Your task to perform on an android device: add a contact Image 0: 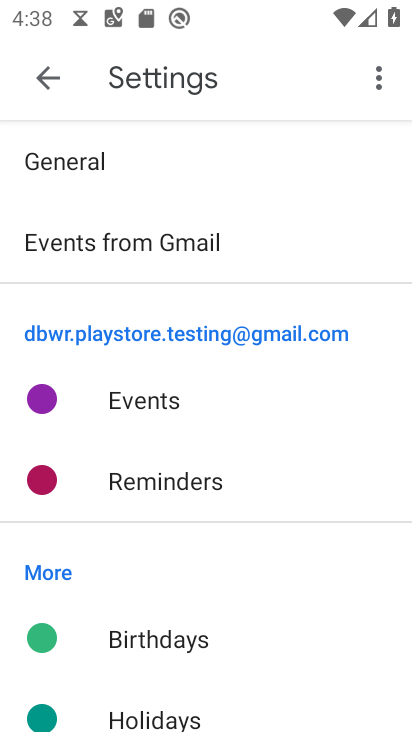
Step 0: click (35, 73)
Your task to perform on an android device: add a contact Image 1: 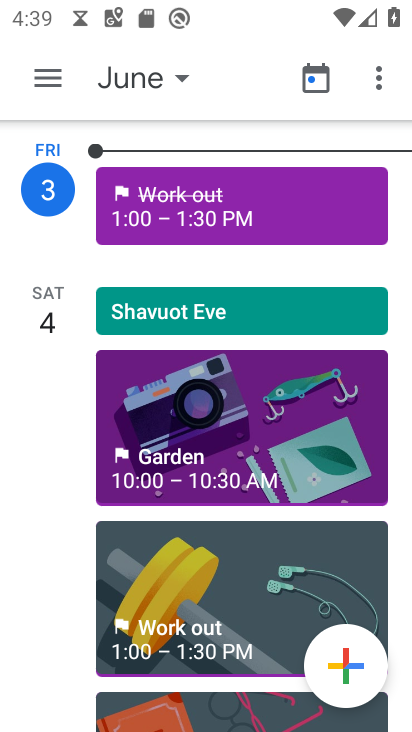
Step 1: press back button
Your task to perform on an android device: add a contact Image 2: 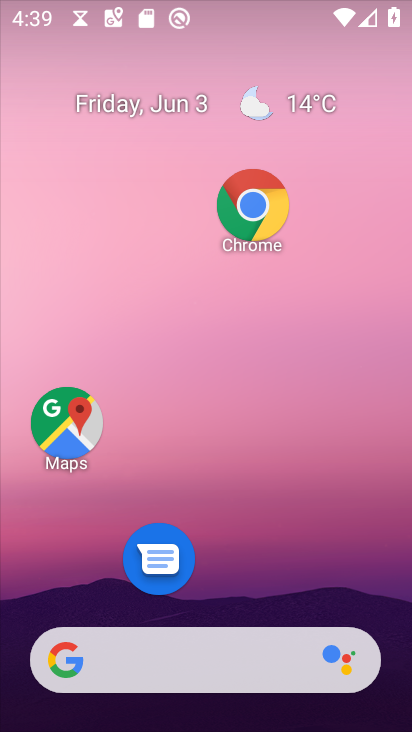
Step 2: drag from (218, 693) to (137, 190)
Your task to perform on an android device: add a contact Image 3: 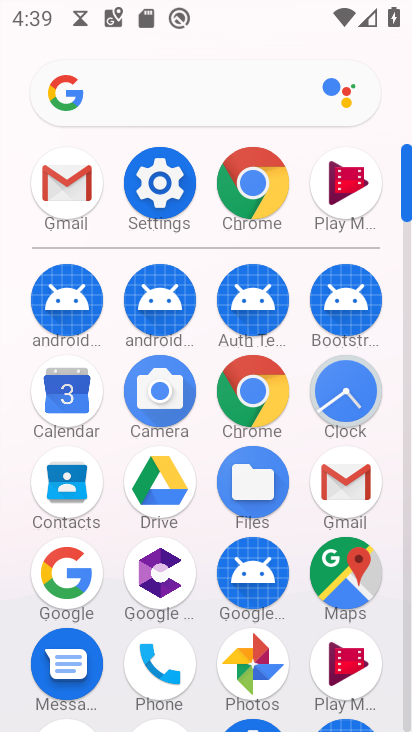
Step 3: click (85, 499)
Your task to perform on an android device: add a contact Image 4: 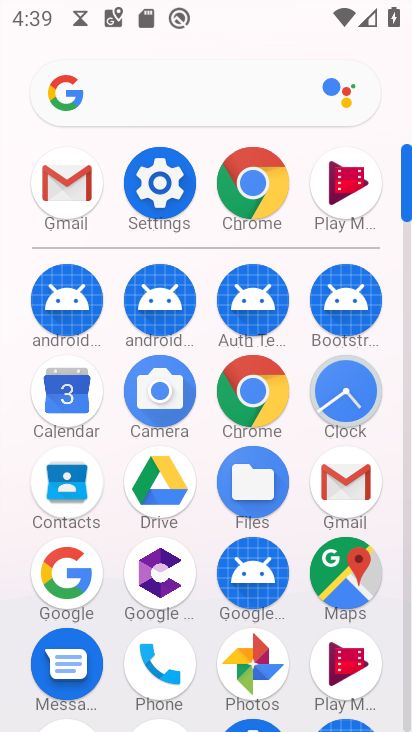
Step 4: click (84, 496)
Your task to perform on an android device: add a contact Image 5: 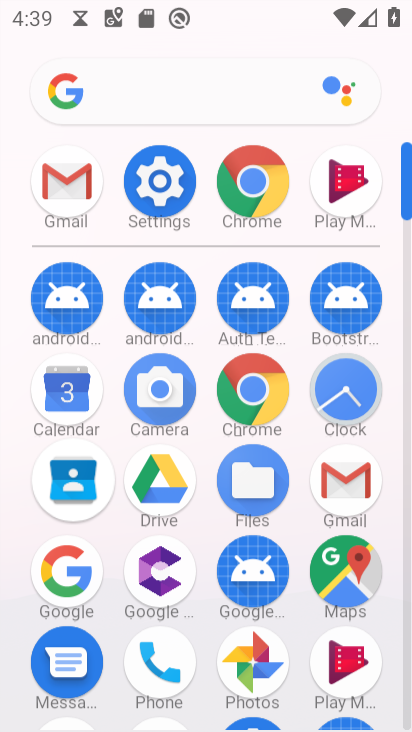
Step 5: drag from (84, 496) to (46, 458)
Your task to perform on an android device: add a contact Image 6: 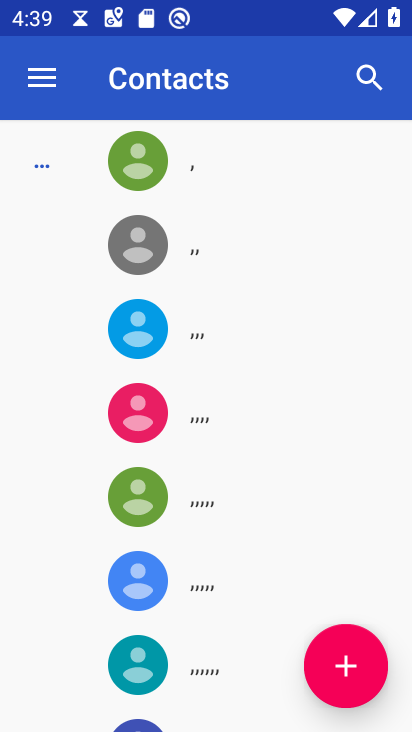
Step 6: click (339, 663)
Your task to perform on an android device: add a contact Image 7: 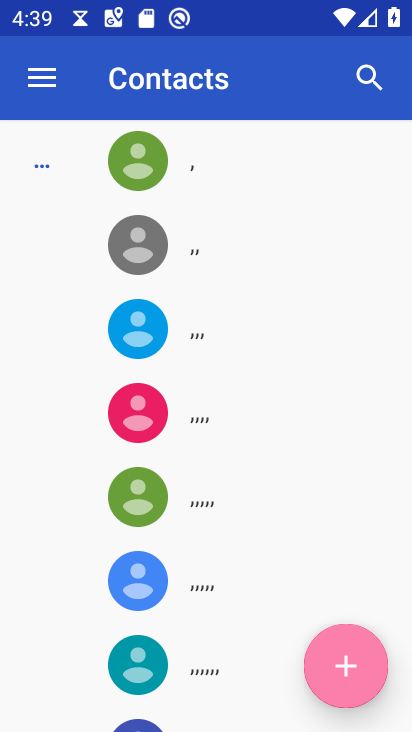
Step 7: click (341, 663)
Your task to perform on an android device: add a contact Image 8: 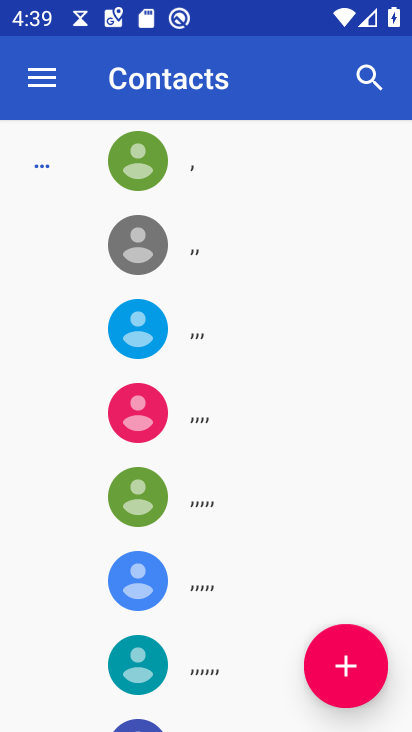
Step 8: click (343, 662)
Your task to perform on an android device: add a contact Image 9: 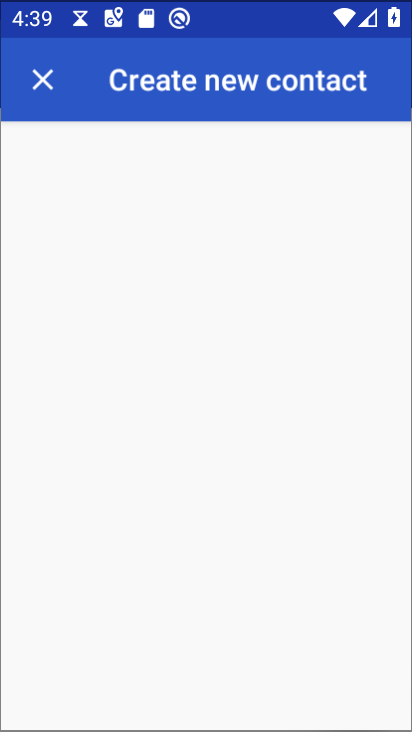
Step 9: click (343, 662)
Your task to perform on an android device: add a contact Image 10: 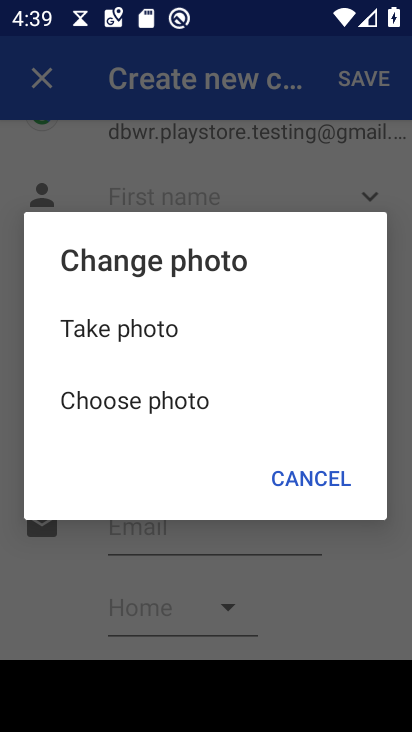
Step 10: click (305, 473)
Your task to perform on an android device: add a contact Image 11: 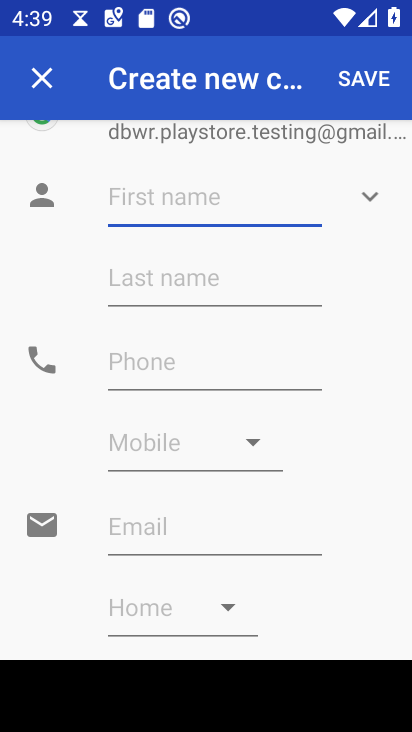
Step 11: type "ihdfvjfnjk"
Your task to perform on an android device: add a contact Image 12: 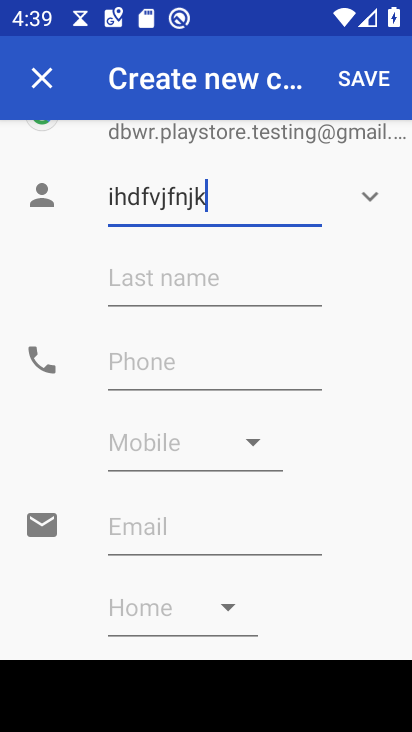
Step 12: click (122, 372)
Your task to perform on an android device: add a contact Image 13: 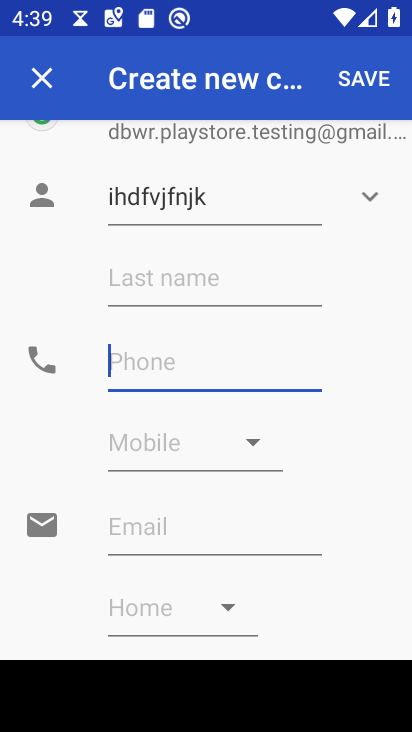
Step 13: click (131, 354)
Your task to perform on an android device: add a contact Image 14: 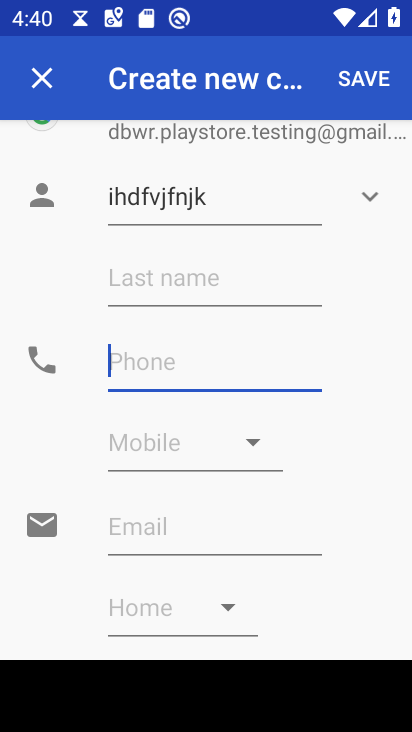
Step 14: type "4738378484"
Your task to perform on an android device: add a contact Image 15: 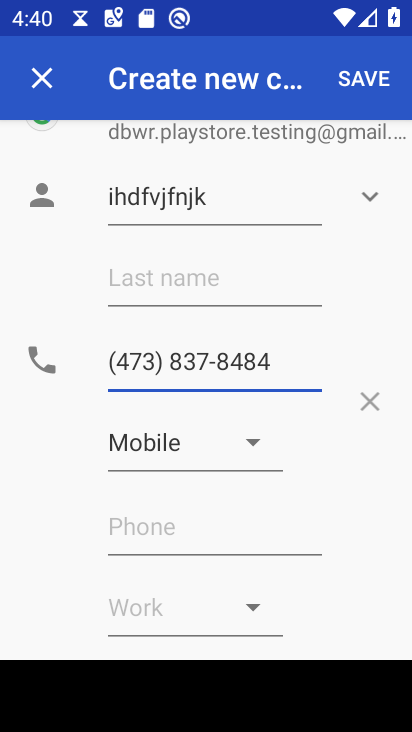
Step 15: click (370, 84)
Your task to perform on an android device: add a contact Image 16: 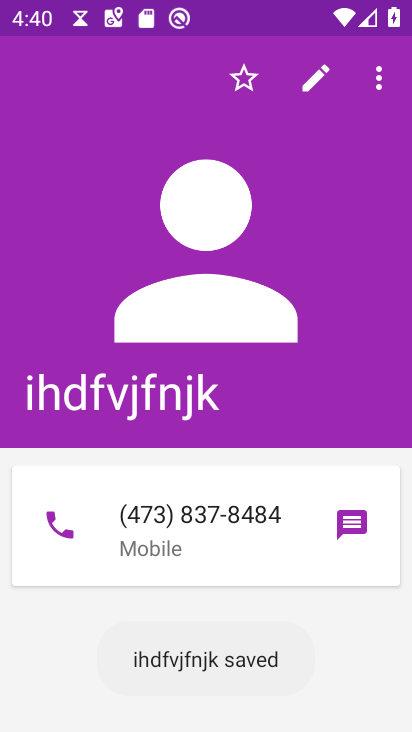
Step 16: task complete